Your task to perform on an android device: Open Yahoo.com Image 0: 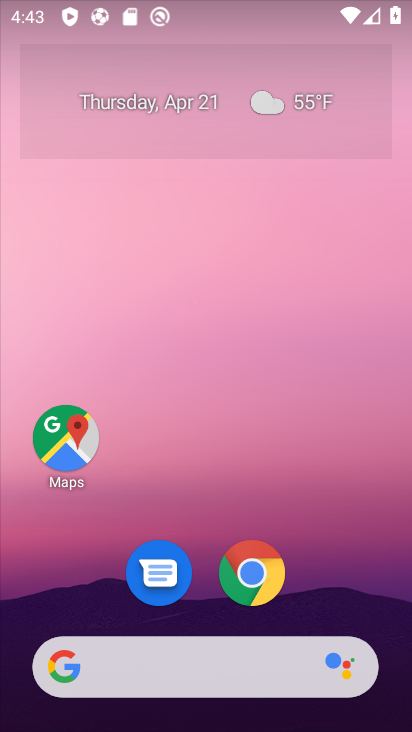
Step 0: click (262, 589)
Your task to perform on an android device: Open Yahoo.com Image 1: 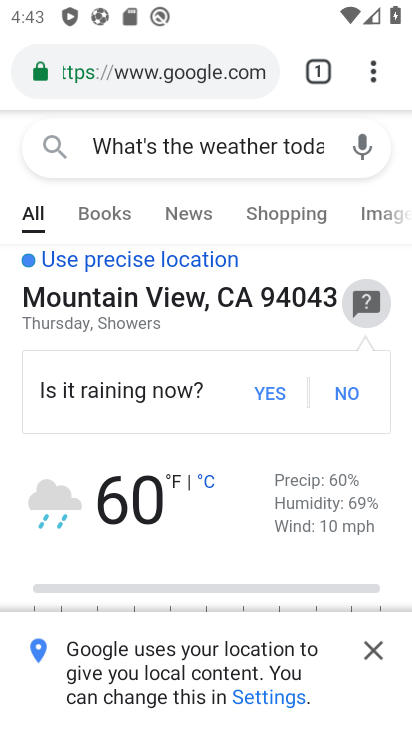
Step 1: click (135, 81)
Your task to perform on an android device: Open Yahoo.com Image 2: 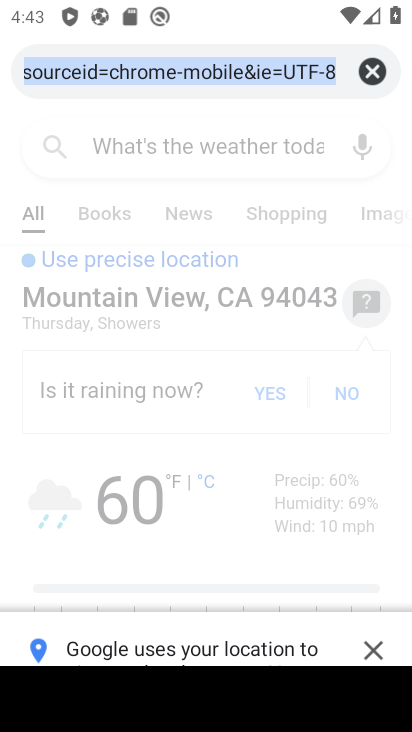
Step 2: type "yahoo.com"
Your task to perform on an android device: Open Yahoo.com Image 3: 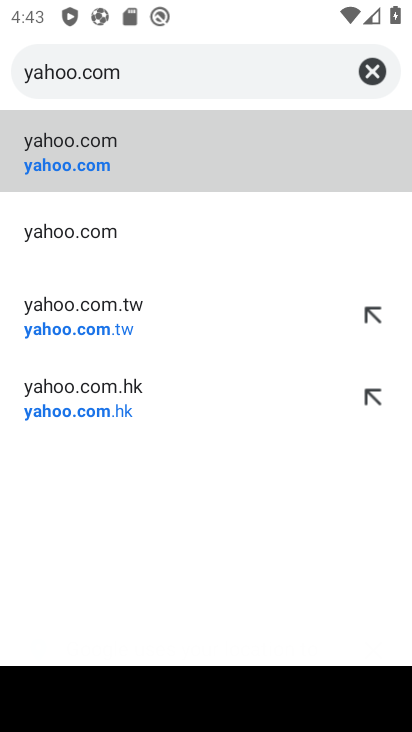
Step 3: click (71, 163)
Your task to perform on an android device: Open Yahoo.com Image 4: 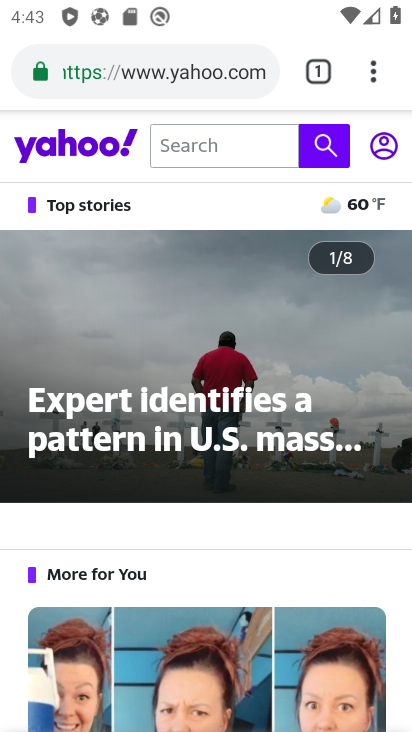
Step 4: task complete